Your task to perform on an android device: Open the web browser Image 0: 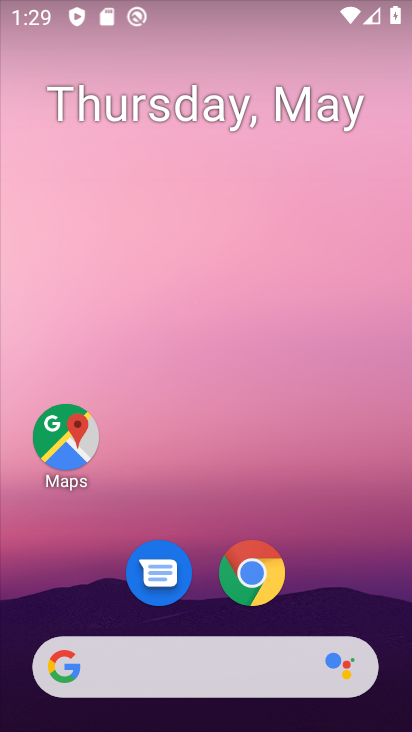
Step 0: click (263, 564)
Your task to perform on an android device: Open the web browser Image 1: 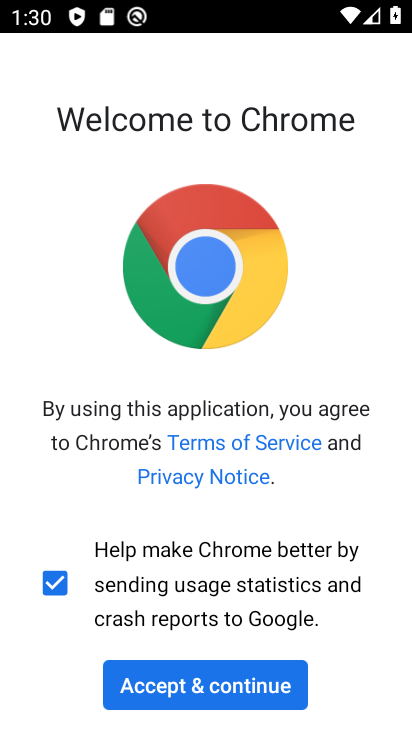
Step 1: task complete